Your task to perform on an android device: Open battery settings Image 0: 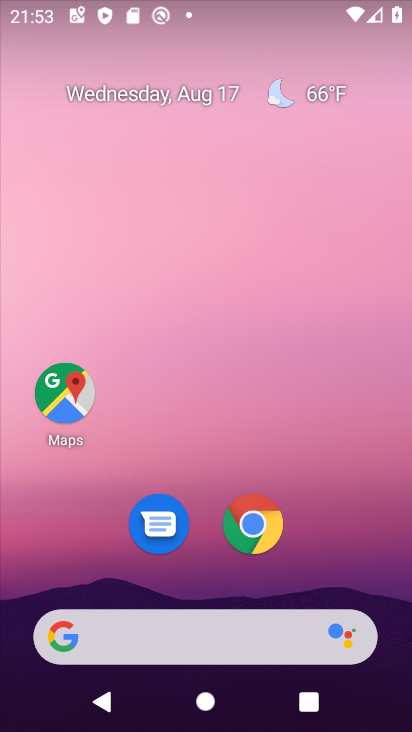
Step 0: drag from (323, 525) to (325, 0)
Your task to perform on an android device: Open battery settings Image 1: 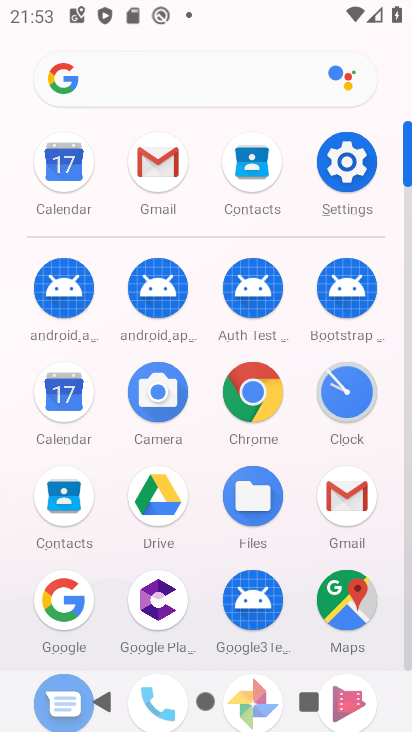
Step 1: click (351, 161)
Your task to perform on an android device: Open battery settings Image 2: 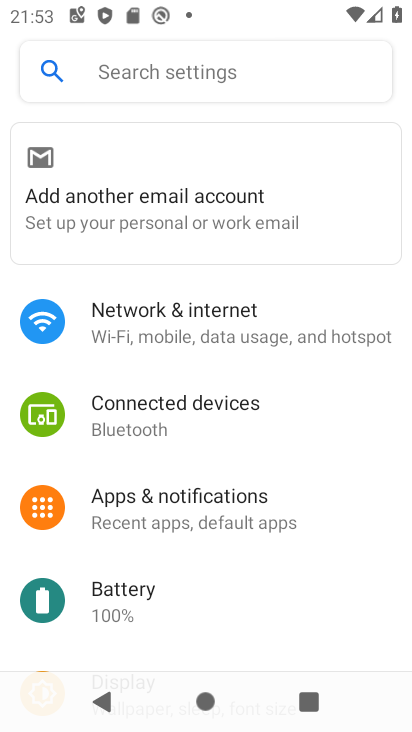
Step 2: click (160, 588)
Your task to perform on an android device: Open battery settings Image 3: 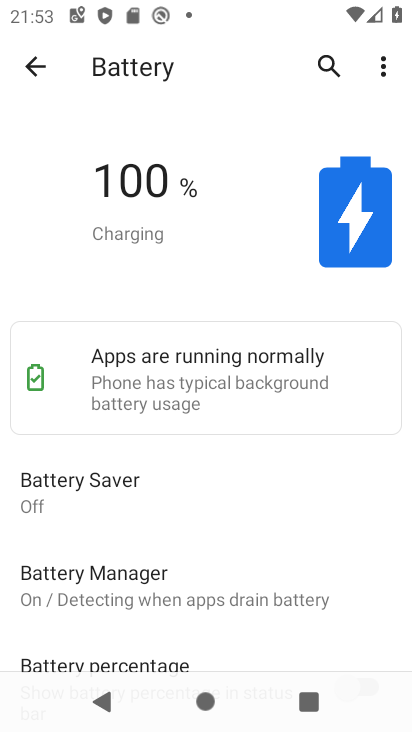
Step 3: task complete